Your task to perform on an android device: Go to settings Image 0: 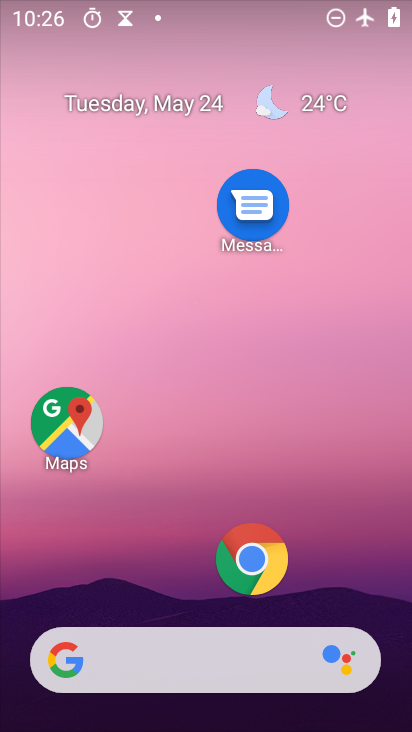
Step 0: drag from (200, 602) to (165, 212)
Your task to perform on an android device: Go to settings Image 1: 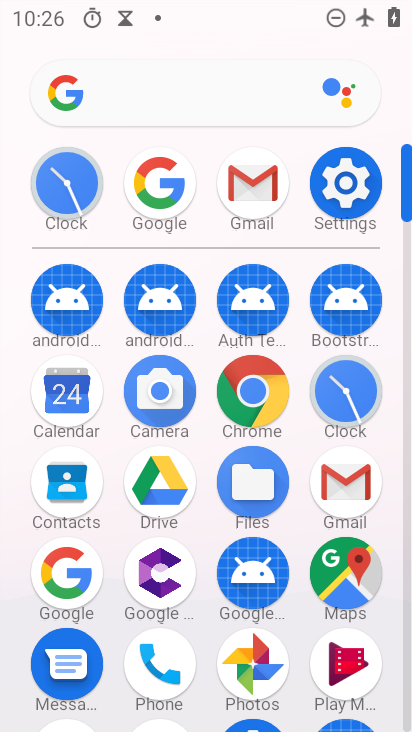
Step 1: click (366, 184)
Your task to perform on an android device: Go to settings Image 2: 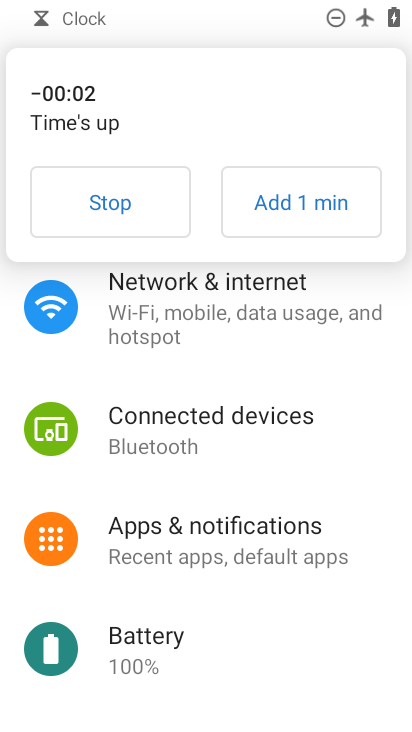
Step 2: drag from (303, 605) to (294, 259)
Your task to perform on an android device: Go to settings Image 3: 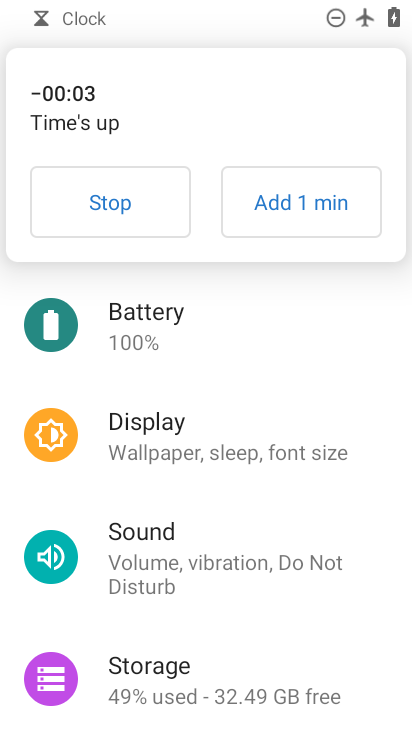
Step 3: drag from (276, 576) to (280, 320)
Your task to perform on an android device: Go to settings Image 4: 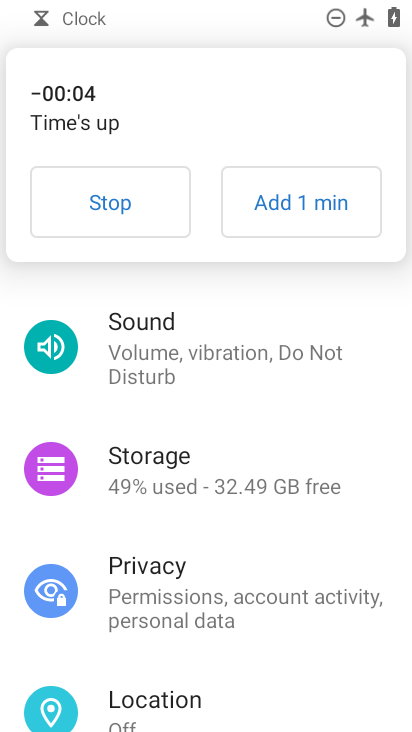
Step 4: drag from (284, 577) to (285, 364)
Your task to perform on an android device: Go to settings Image 5: 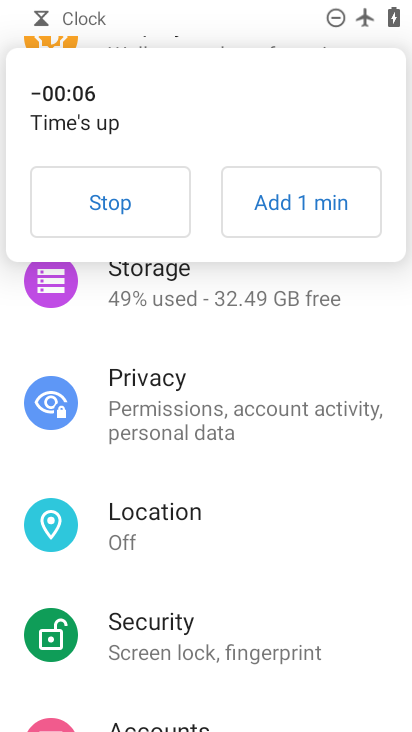
Step 5: click (169, 212)
Your task to perform on an android device: Go to settings Image 6: 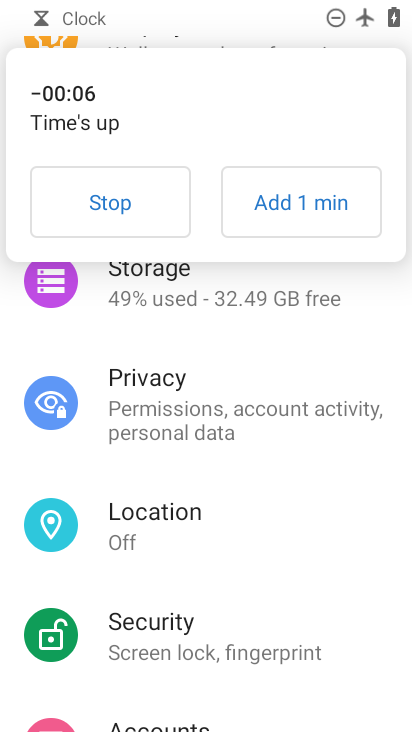
Step 6: task complete